Your task to perform on an android device: check out phone information Image 0: 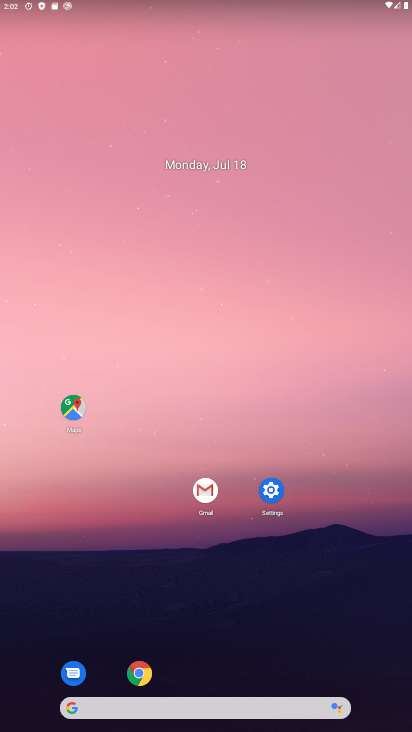
Step 0: click (271, 500)
Your task to perform on an android device: check out phone information Image 1: 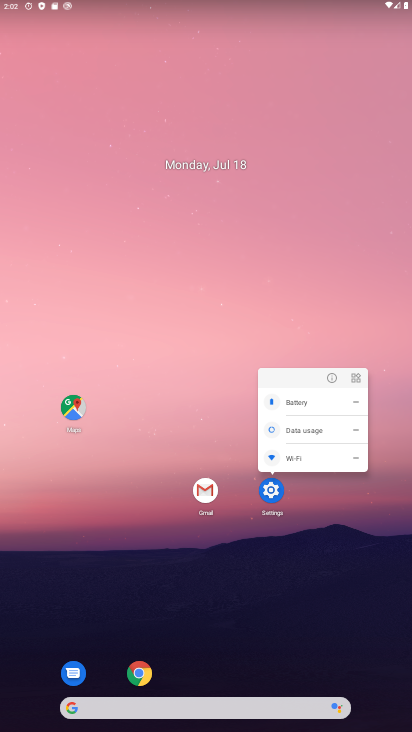
Step 1: click (270, 494)
Your task to perform on an android device: check out phone information Image 2: 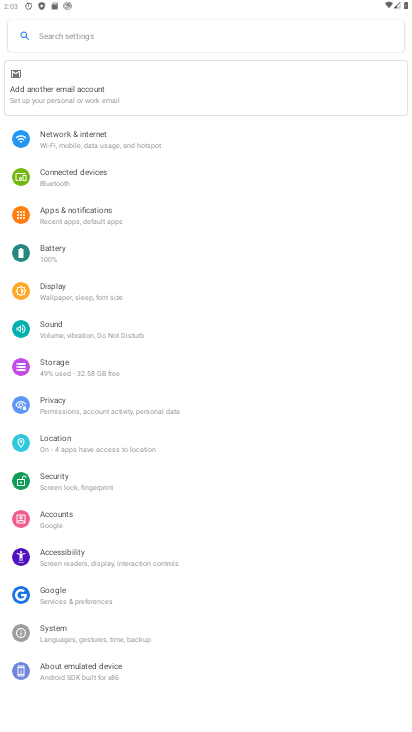
Step 2: click (84, 32)
Your task to perform on an android device: check out phone information Image 3: 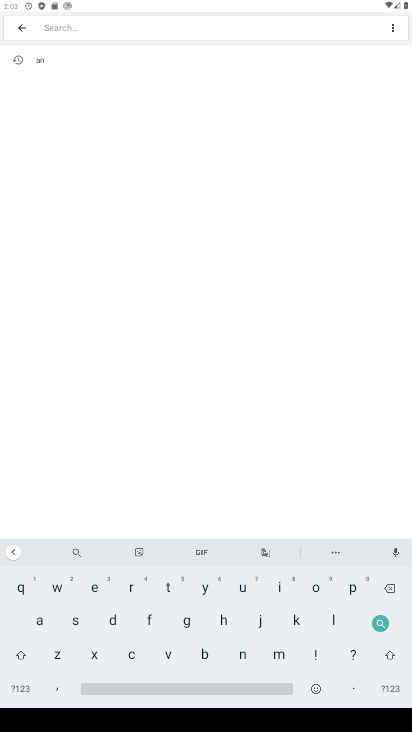
Step 3: click (29, 620)
Your task to perform on an android device: check out phone information Image 4: 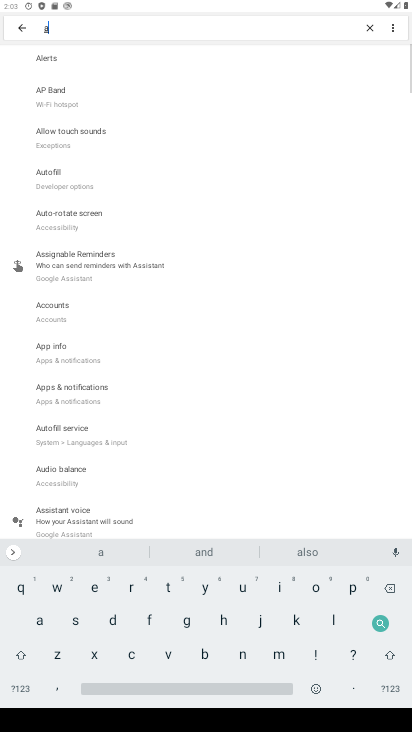
Step 4: click (199, 649)
Your task to perform on an android device: check out phone information Image 5: 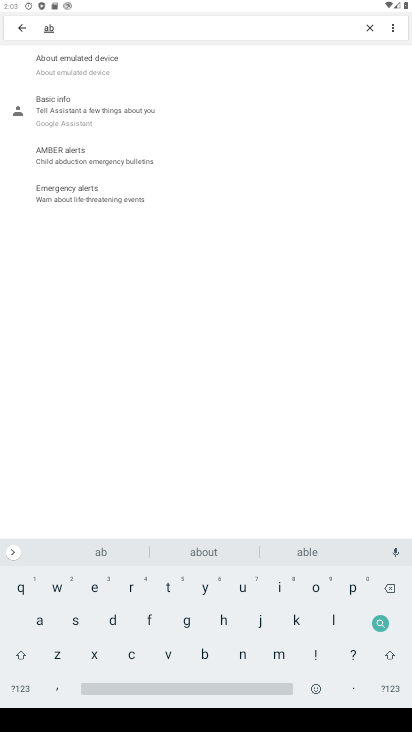
Step 5: click (104, 67)
Your task to perform on an android device: check out phone information Image 6: 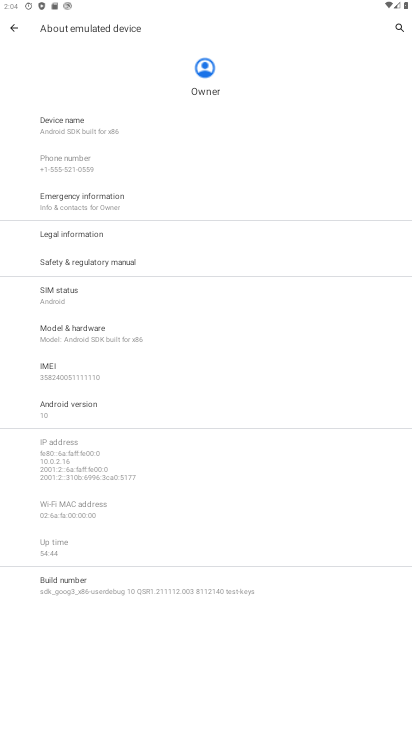
Step 6: task complete